Your task to perform on an android device: open app "Venmo" (install if not already installed) Image 0: 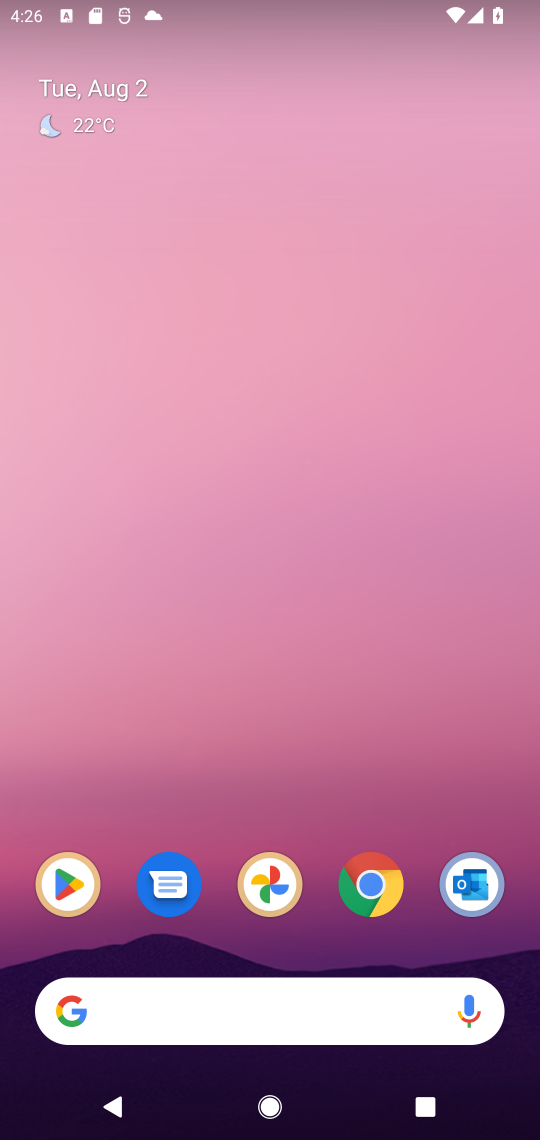
Step 0: click (65, 876)
Your task to perform on an android device: open app "Venmo" (install if not already installed) Image 1: 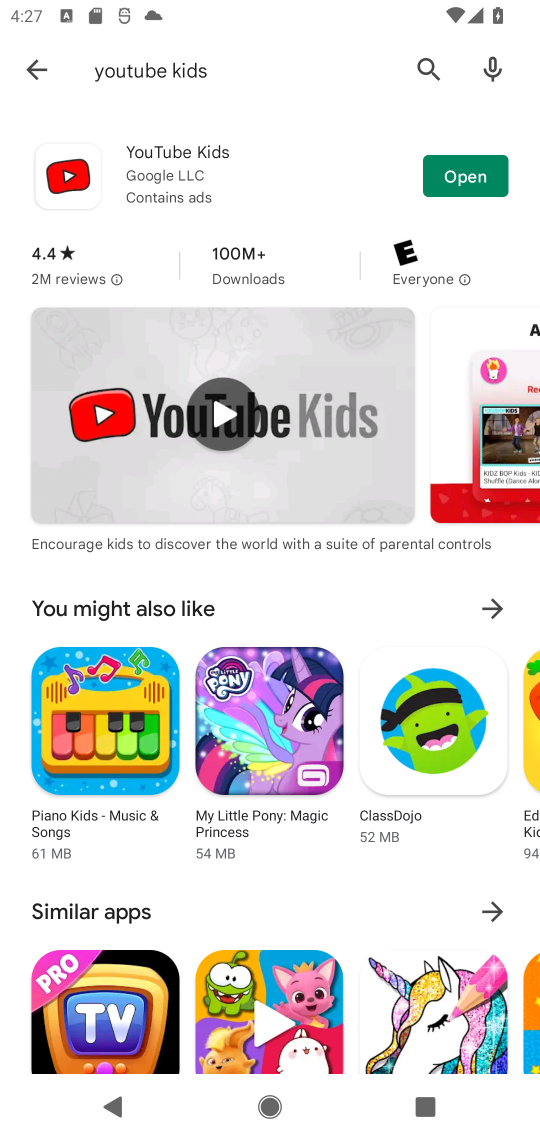
Step 1: click (30, 68)
Your task to perform on an android device: open app "Venmo" (install if not already installed) Image 2: 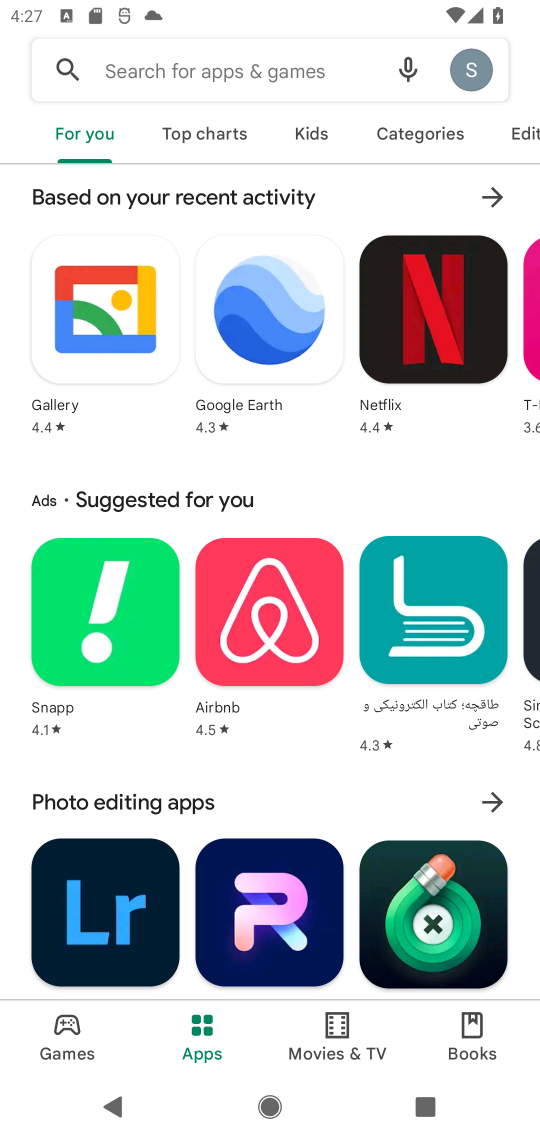
Step 2: click (174, 77)
Your task to perform on an android device: open app "Venmo" (install if not already installed) Image 3: 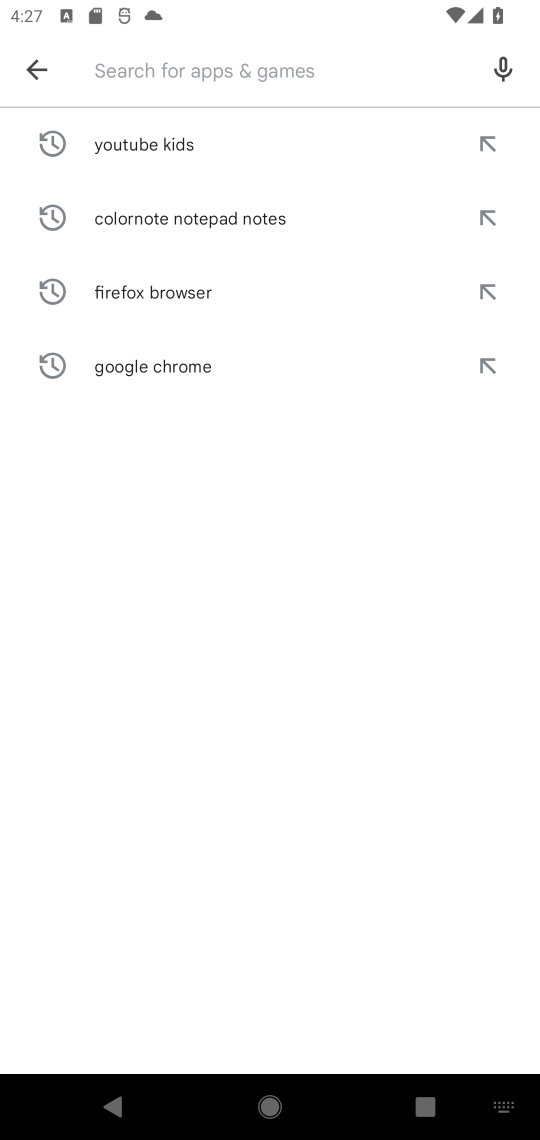
Step 3: type "Venmo"
Your task to perform on an android device: open app "Venmo" (install if not already installed) Image 4: 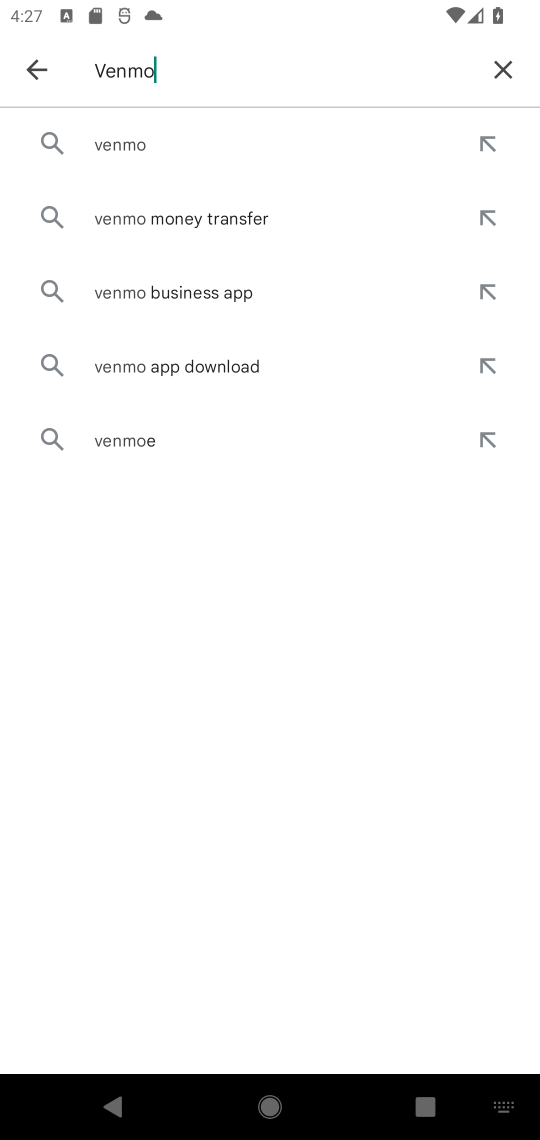
Step 4: click (94, 147)
Your task to perform on an android device: open app "Venmo" (install if not already installed) Image 5: 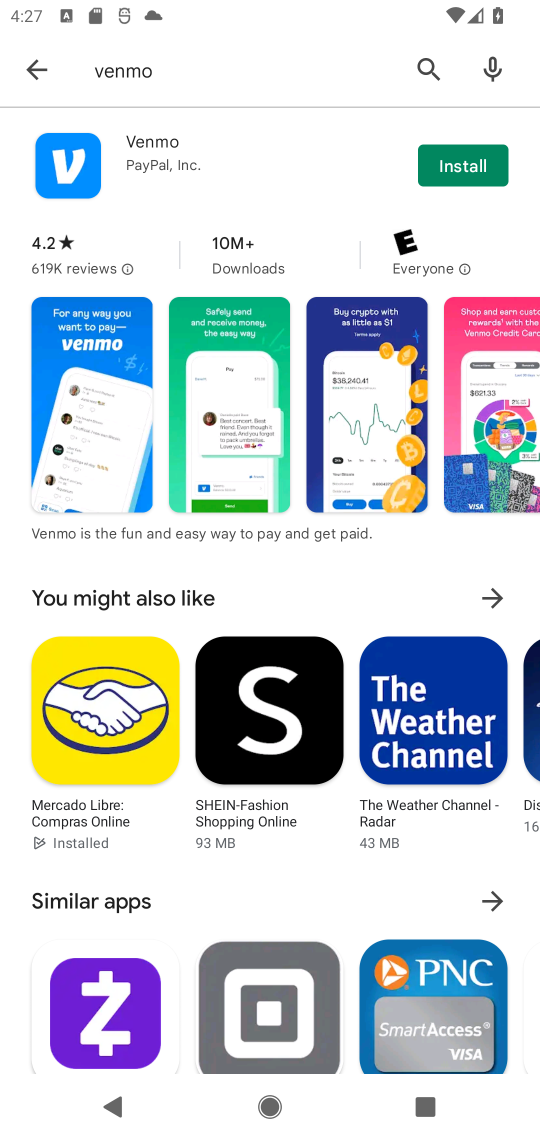
Step 5: click (462, 167)
Your task to perform on an android device: open app "Venmo" (install if not already installed) Image 6: 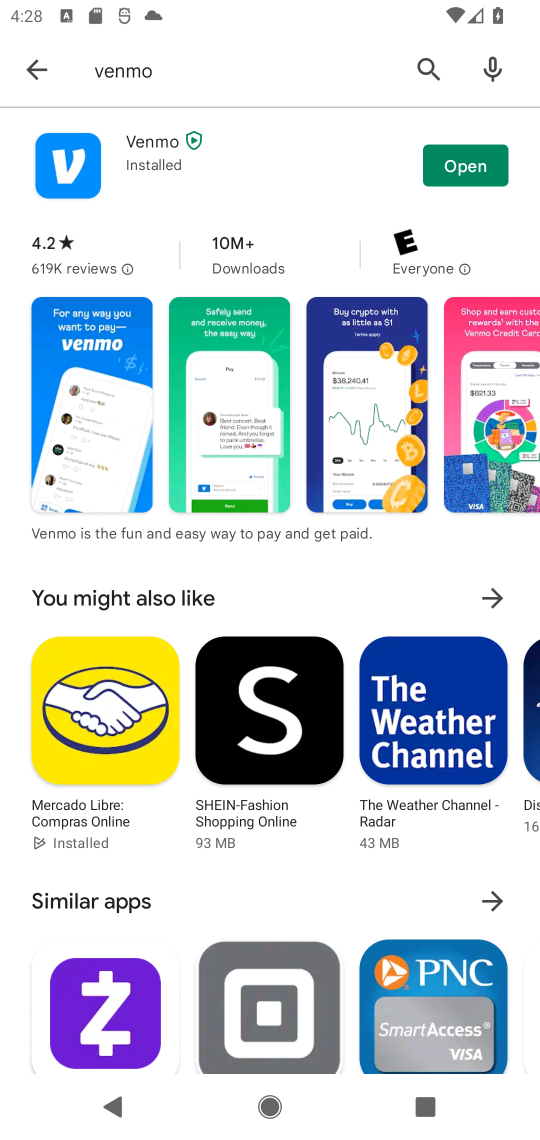
Step 6: click (492, 153)
Your task to perform on an android device: open app "Venmo" (install if not already installed) Image 7: 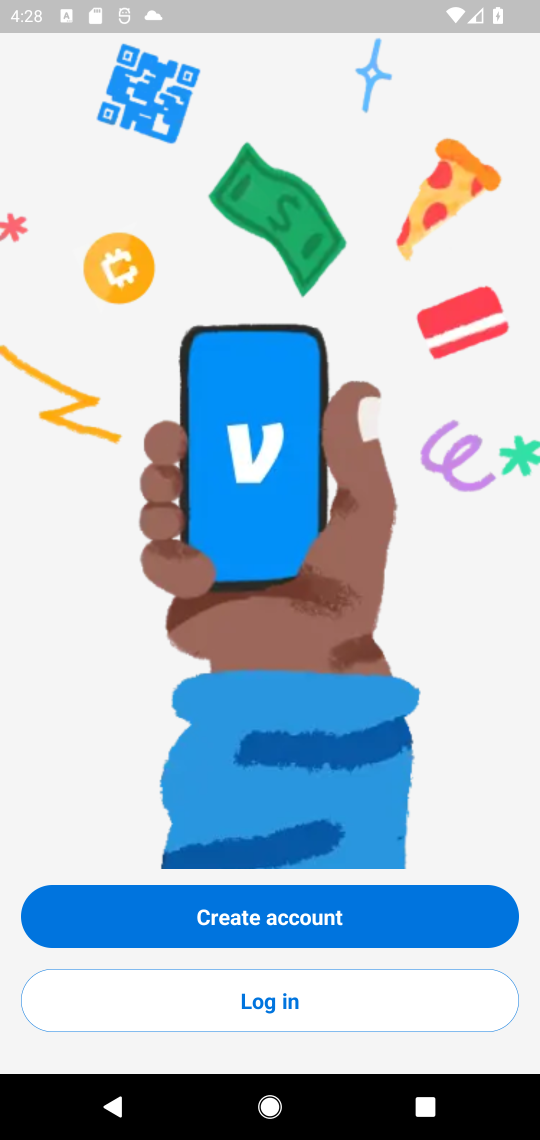
Step 7: task complete